Your task to perform on an android device: Open Youtube and go to the subscriptions tab Image 0: 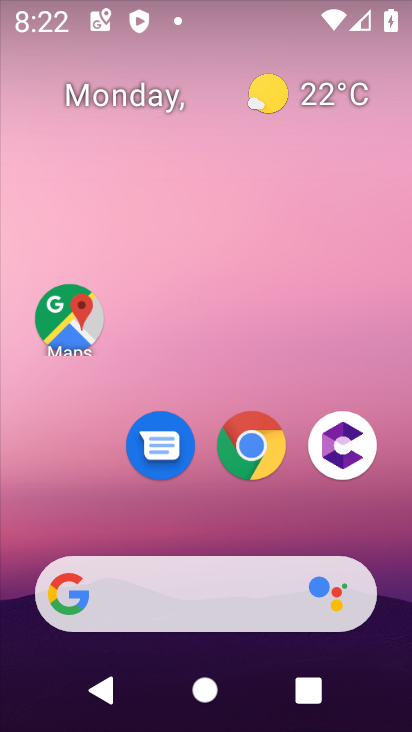
Step 0: drag from (192, 362) to (57, 9)
Your task to perform on an android device: Open Youtube and go to the subscriptions tab Image 1: 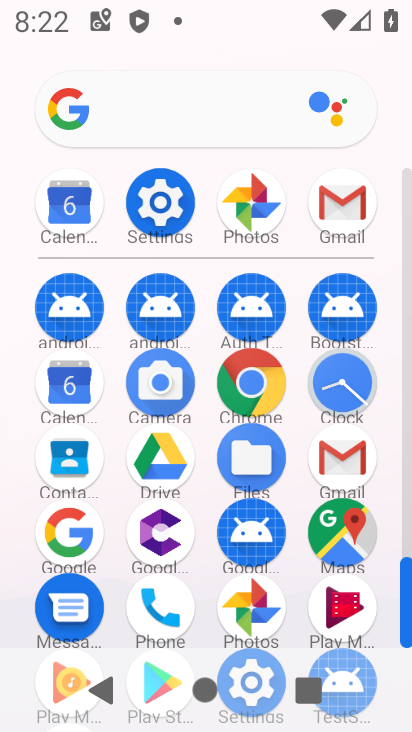
Step 1: drag from (118, 555) to (104, 270)
Your task to perform on an android device: Open Youtube and go to the subscriptions tab Image 2: 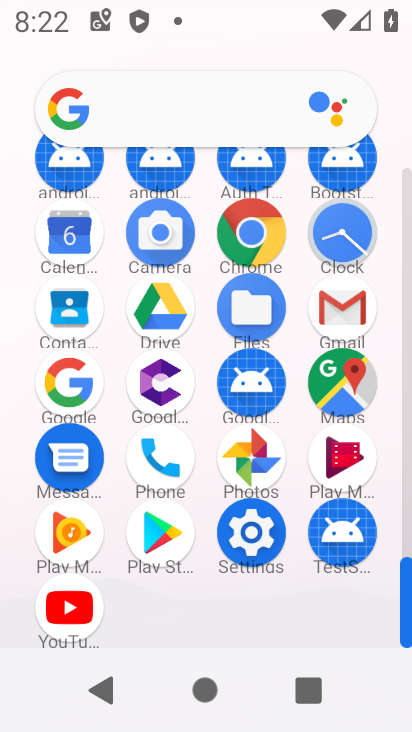
Step 2: click (57, 615)
Your task to perform on an android device: Open Youtube and go to the subscriptions tab Image 3: 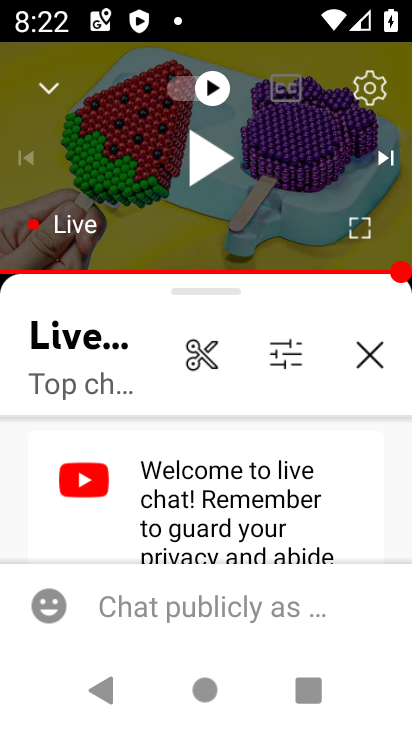
Step 3: click (368, 354)
Your task to perform on an android device: Open Youtube and go to the subscriptions tab Image 4: 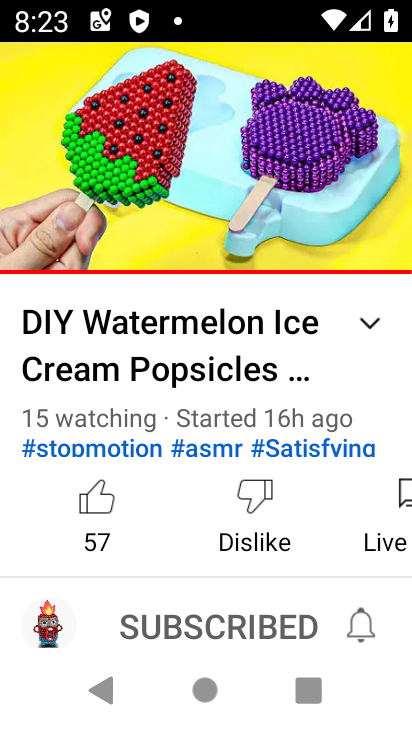
Step 4: drag from (187, 353) to (172, 260)
Your task to perform on an android device: Open Youtube and go to the subscriptions tab Image 5: 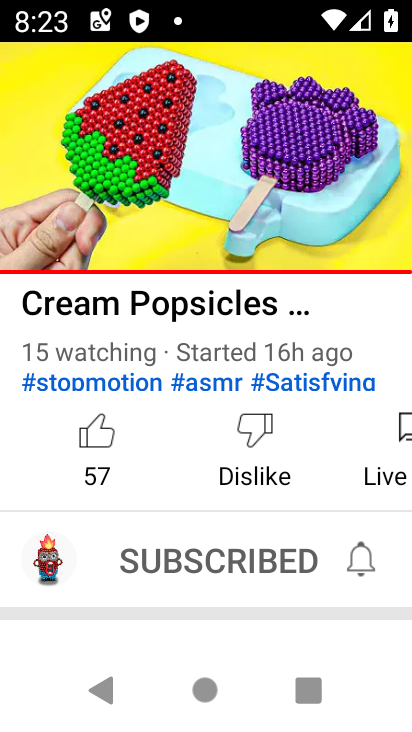
Step 5: press back button
Your task to perform on an android device: Open Youtube and go to the subscriptions tab Image 6: 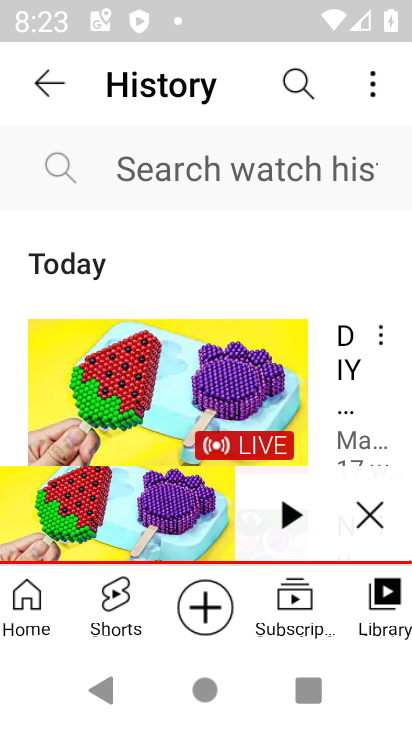
Step 6: click (297, 608)
Your task to perform on an android device: Open Youtube and go to the subscriptions tab Image 7: 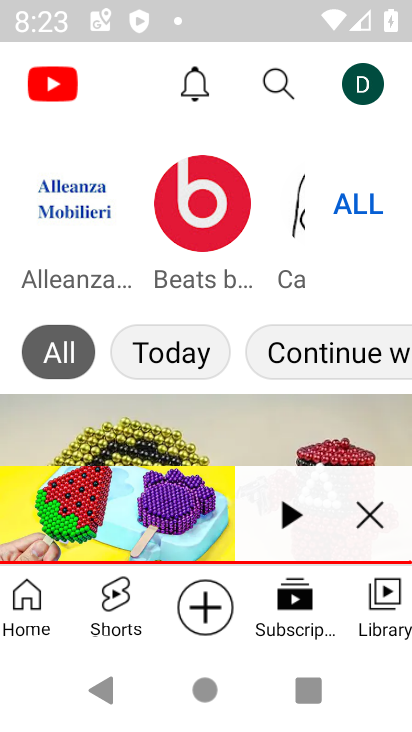
Step 7: task complete